Your task to perform on an android device: Open internet settings Image 0: 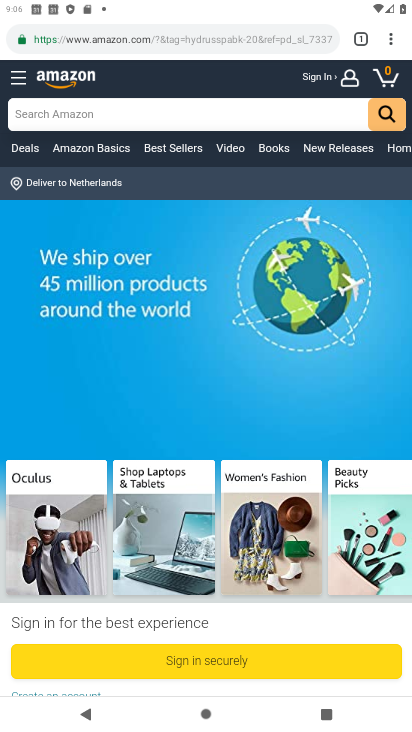
Step 0: press home button
Your task to perform on an android device: Open internet settings Image 1: 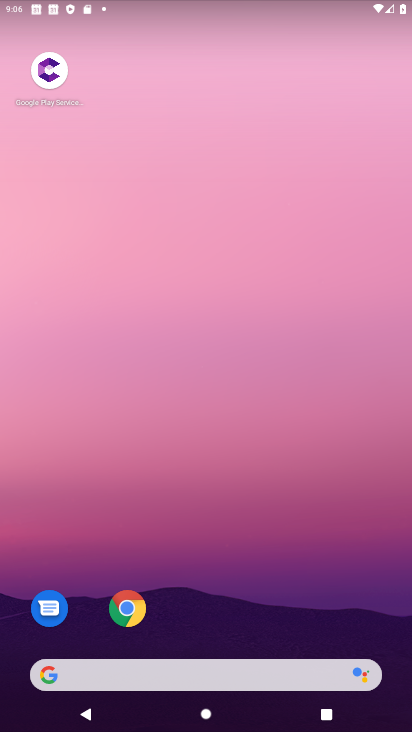
Step 1: drag from (339, 577) to (281, 52)
Your task to perform on an android device: Open internet settings Image 2: 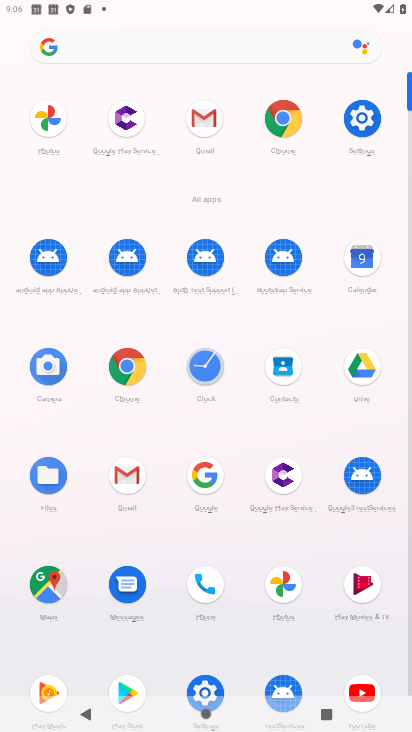
Step 2: click (359, 127)
Your task to perform on an android device: Open internet settings Image 3: 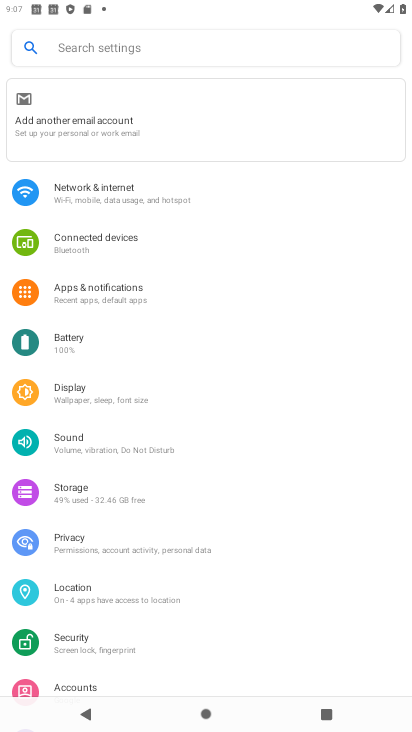
Step 3: click (127, 194)
Your task to perform on an android device: Open internet settings Image 4: 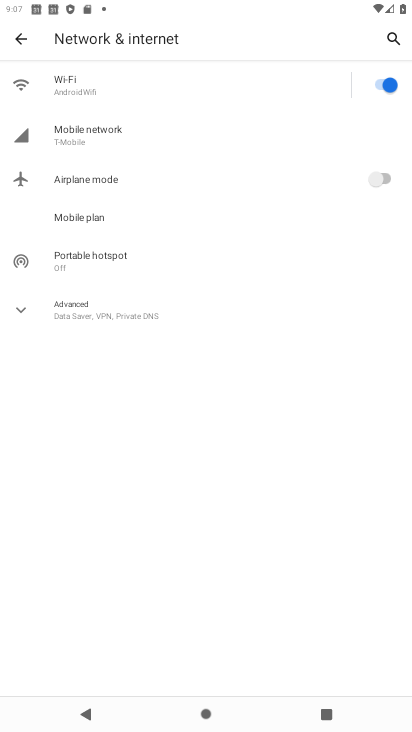
Step 4: click (73, 150)
Your task to perform on an android device: Open internet settings Image 5: 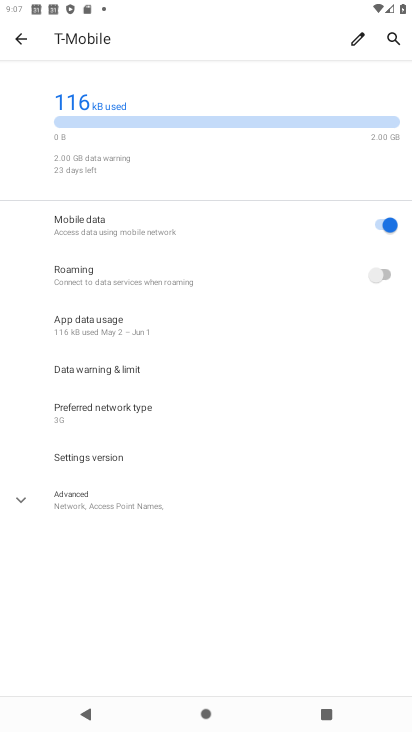
Step 5: task complete